Your task to perform on an android device: toggle airplane mode Image 0: 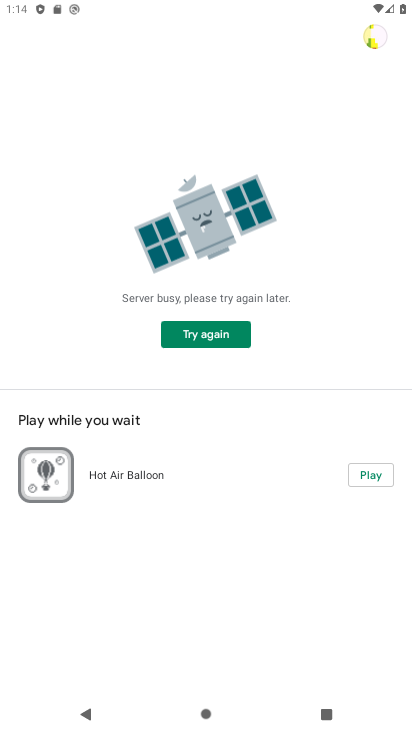
Step 0: press home button
Your task to perform on an android device: toggle airplane mode Image 1: 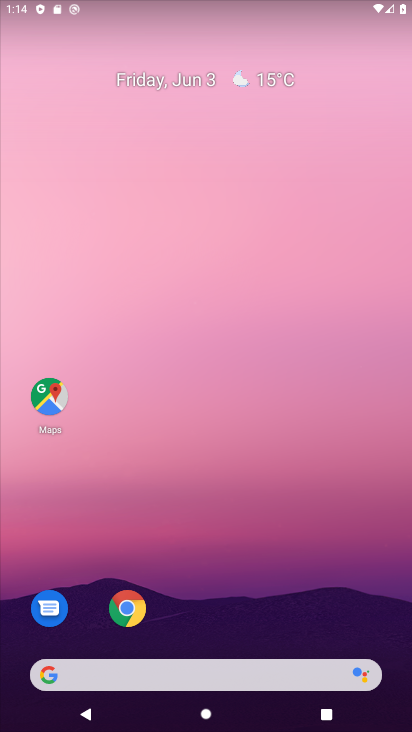
Step 1: drag from (262, 587) to (238, 162)
Your task to perform on an android device: toggle airplane mode Image 2: 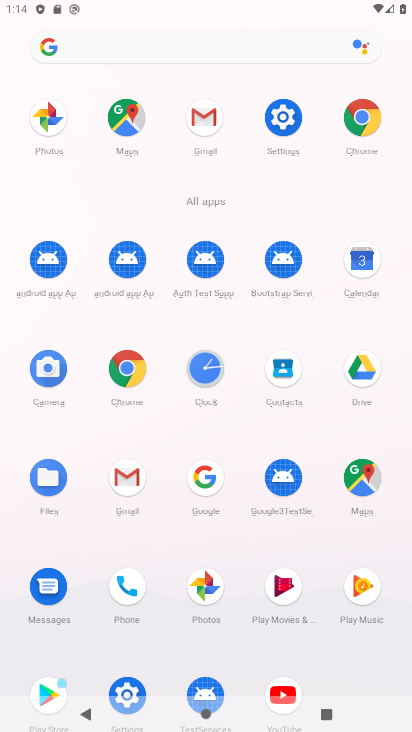
Step 2: click (280, 122)
Your task to perform on an android device: toggle airplane mode Image 3: 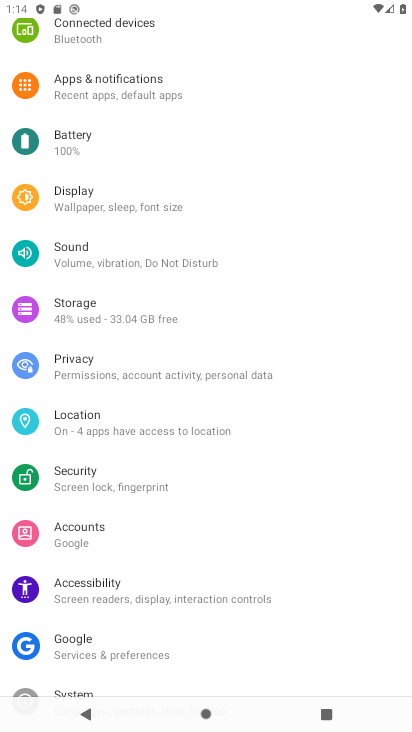
Step 3: drag from (189, 109) to (141, 525)
Your task to perform on an android device: toggle airplane mode Image 4: 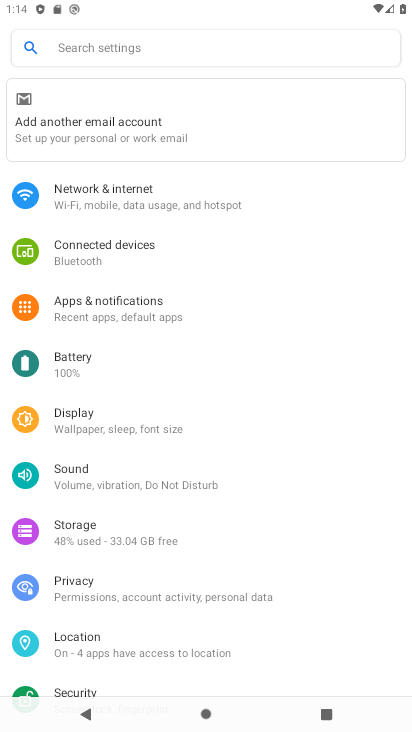
Step 4: click (162, 205)
Your task to perform on an android device: toggle airplane mode Image 5: 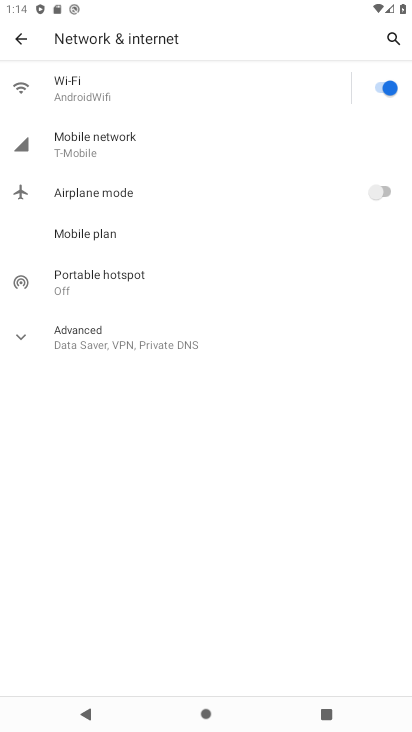
Step 5: click (388, 188)
Your task to perform on an android device: toggle airplane mode Image 6: 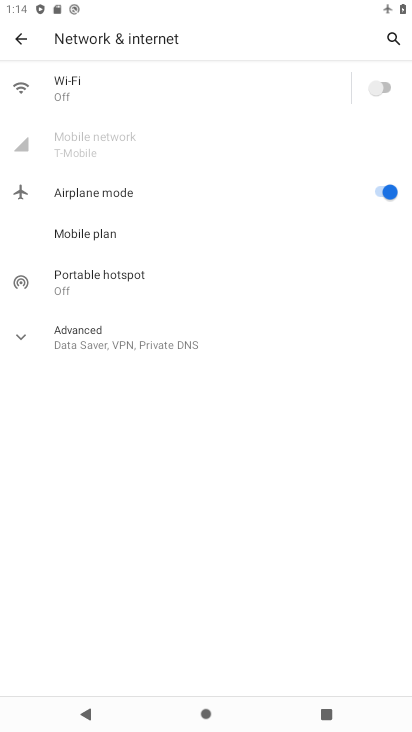
Step 6: task complete